Your task to perform on an android device: turn off airplane mode Image 0: 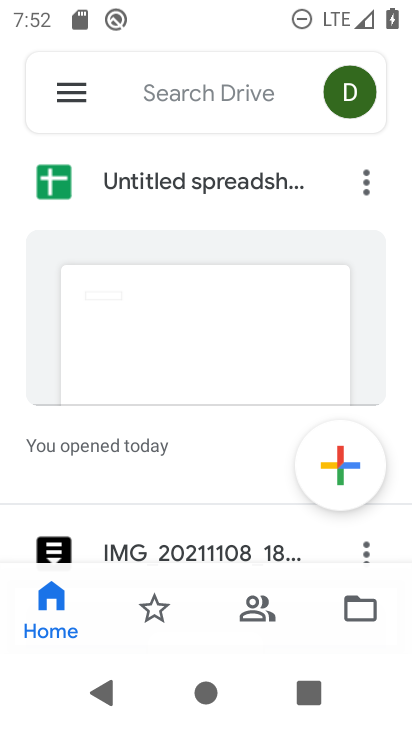
Step 0: press home button
Your task to perform on an android device: turn off airplane mode Image 1: 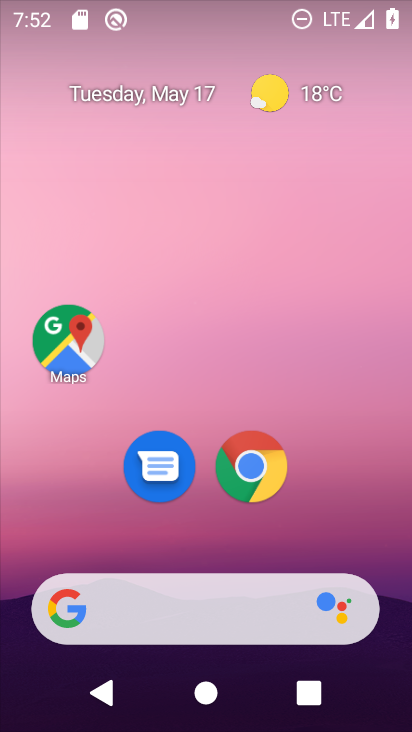
Step 1: drag from (139, 625) to (269, 215)
Your task to perform on an android device: turn off airplane mode Image 2: 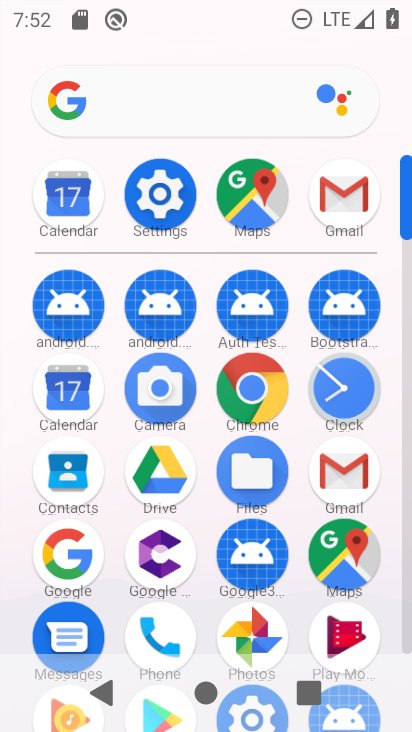
Step 2: click (160, 211)
Your task to perform on an android device: turn off airplane mode Image 3: 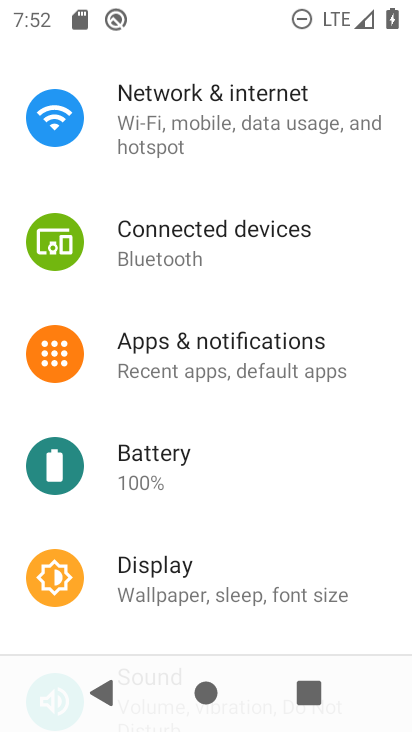
Step 3: drag from (302, 185) to (243, 440)
Your task to perform on an android device: turn off airplane mode Image 4: 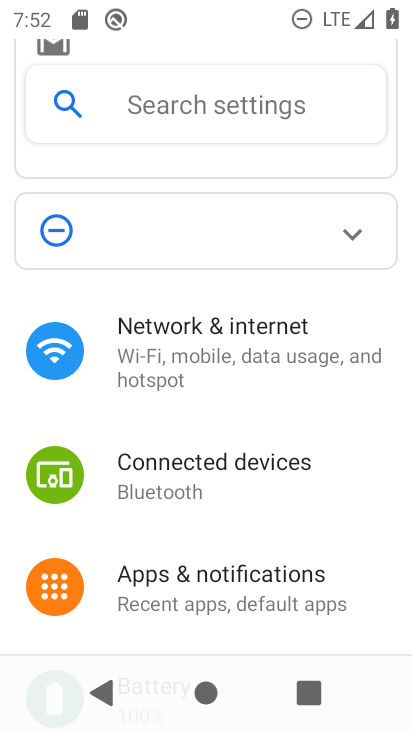
Step 4: click (224, 341)
Your task to perform on an android device: turn off airplane mode Image 5: 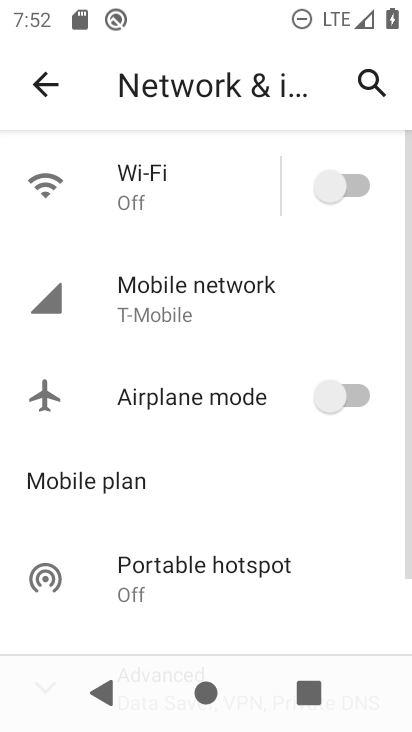
Step 5: click (356, 386)
Your task to perform on an android device: turn off airplane mode Image 6: 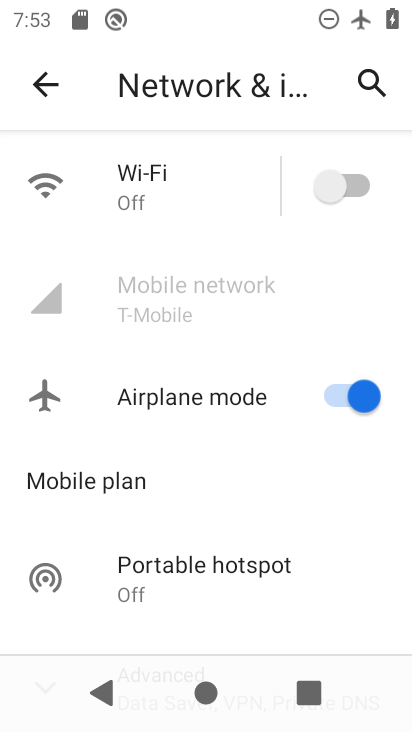
Step 6: click (337, 395)
Your task to perform on an android device: turn off airplane mode Image 7: 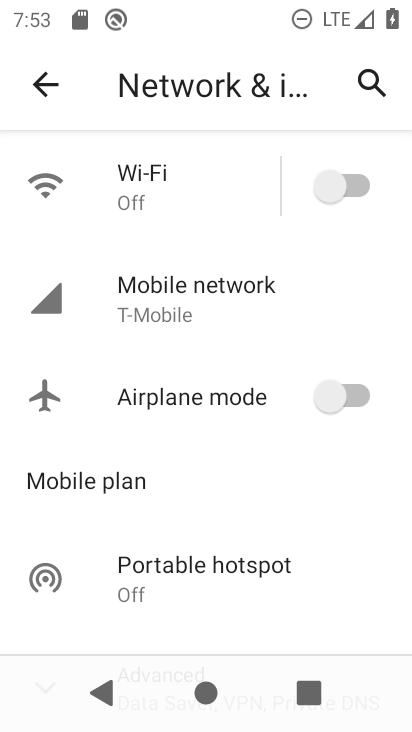
Step 7: task complete